Your task to perform on an android device: find photos in the google photos app Image 0: 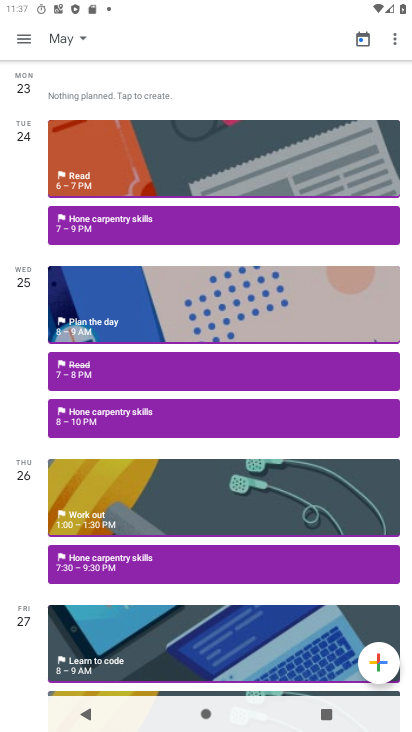
Step 0: press home button
Your task to perform on an android device: find photos in the google photos app Image 1: 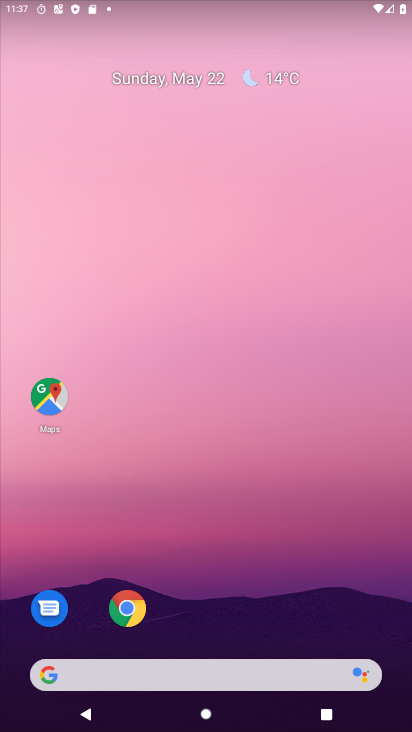
Step 1: drag from (225, 626) to (227, 196)
Your task to perform on an android device: find photos in the google photos app Image 2: 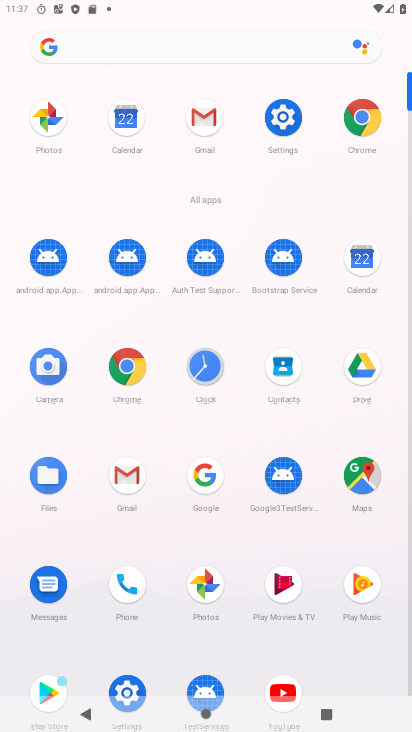
Step 2: click (46, 124)
Your task to perform on an android device: find photos in the google photos app Image 3: 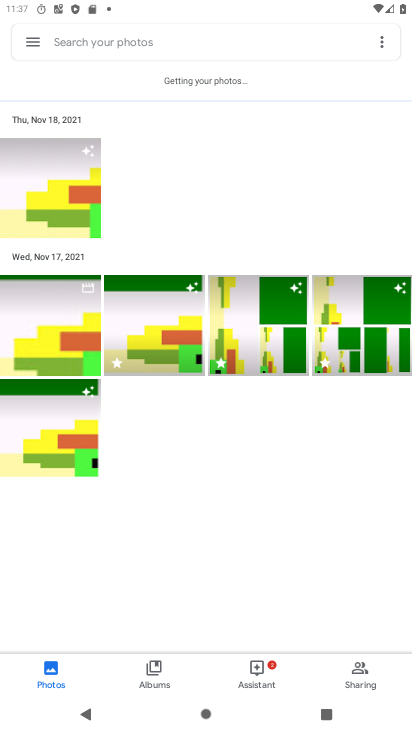
Step 3: task complete